Your task to perform on an android device: Open Yahoo.com Image 0: 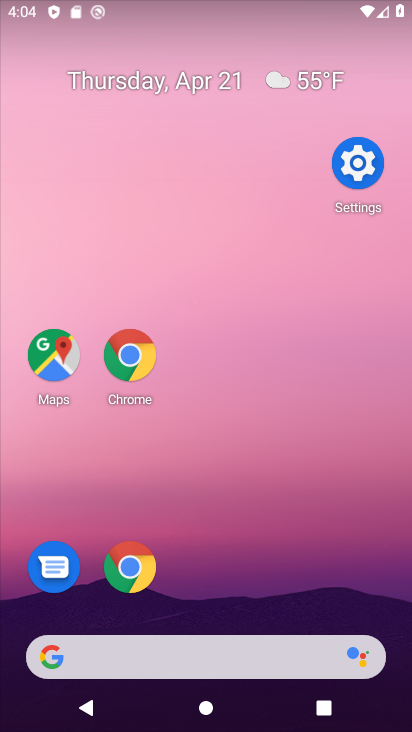
Step 0: drag from (259, 520) to (259, 139)
Your task to perform on an android device: Open Yahoo.com Image 1: 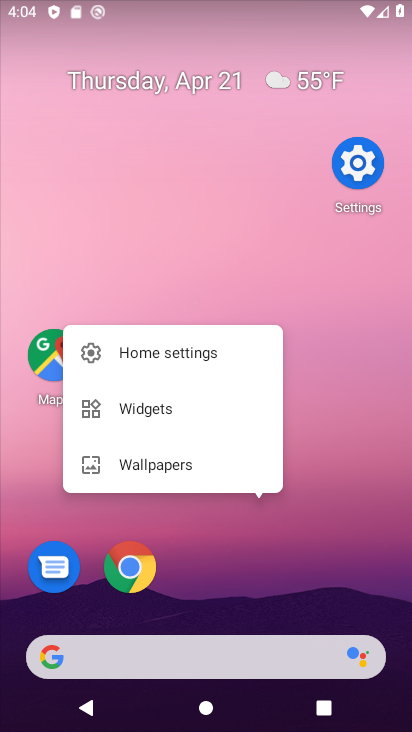
Step 1: drag from (290, 297) to (295, 56)
Your task to perform on an android device: Open Yahoo.com Image 2: 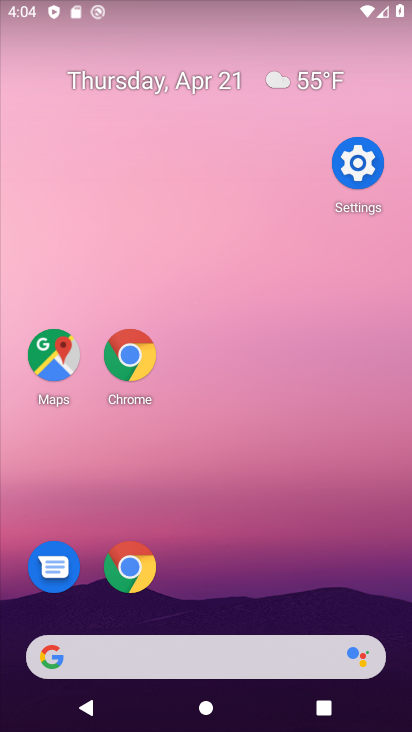
Step 2: drag from (278, 554) to (285, 56)
Your task to perform on an android device: Open Yahoo.com Image 3: 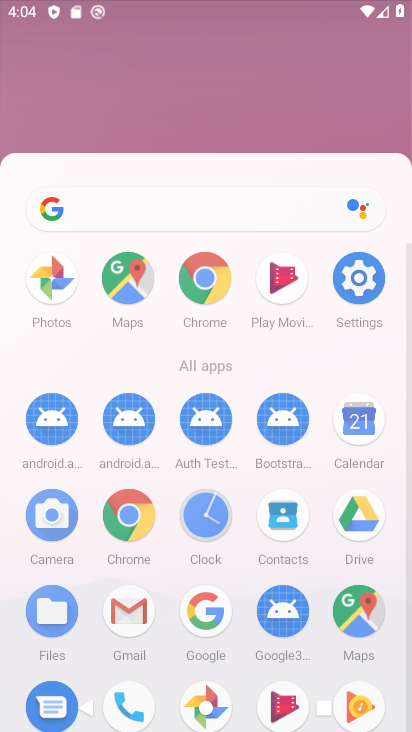
Step 3: drag from (242, 10) to (175, 9)
Your task to perform on an android device: Open Yahoo.com Image 4: 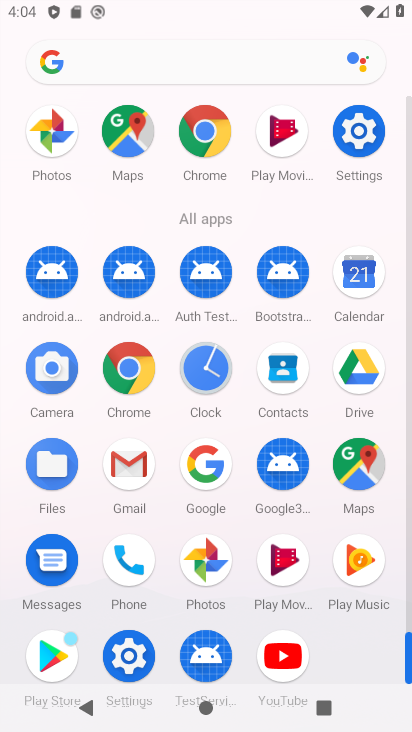
Step 4: click (200, 118)
Your task to perform on an android device: Open Yahoo.com Image 5: 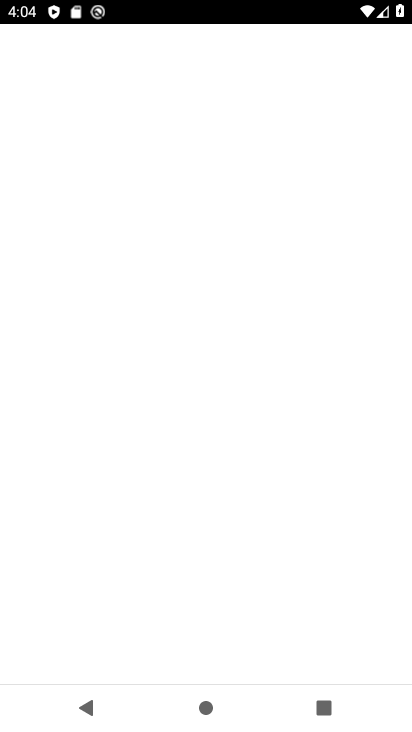
Step 5: click (208, 132)
Your task to perform on an android device: Open Yahoo.com Image 6: 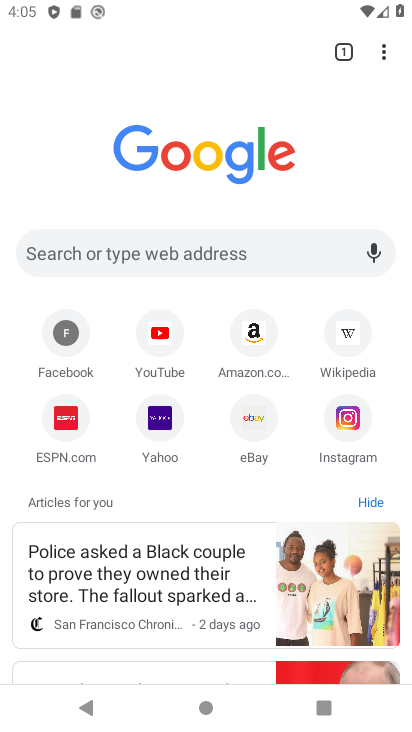
Step 6: click (68, 247)
Your task to perform on an android device: Open Yahoo.com Image 7: 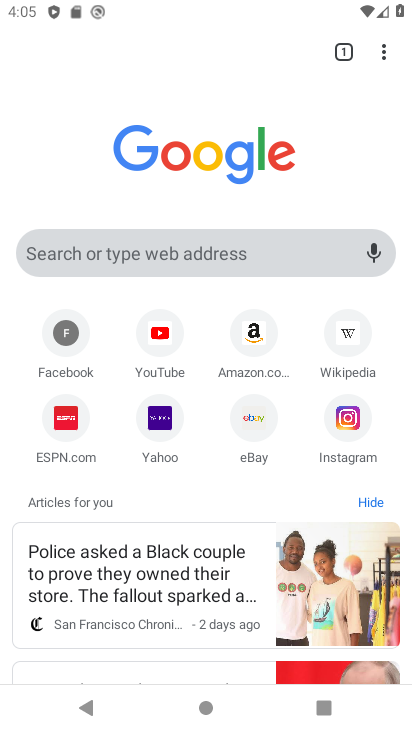
Step 7: click (68, 247)
Your task to perform on an android device: Open Yahoo.com Image 8: 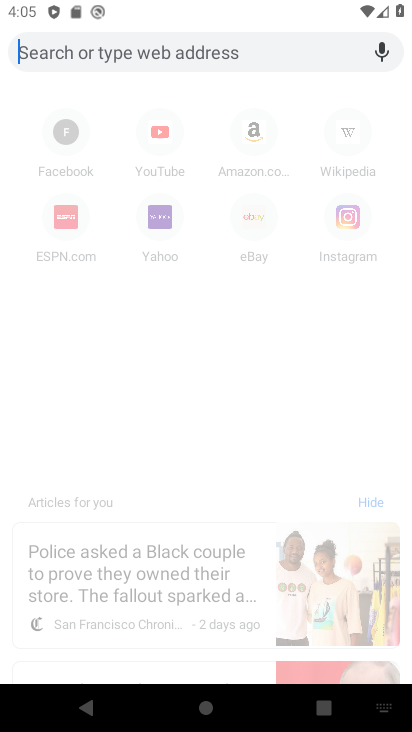
Step 8: click (163, 213)
Your task to perform on an android device: Open Yahoo.com Image 9: 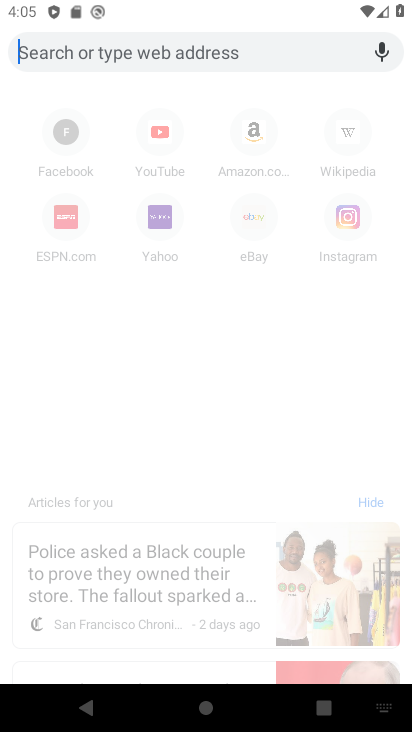
Step 9: click (164, 213)
Your task to perform on an android device: Open Yahoo.com Image 10: 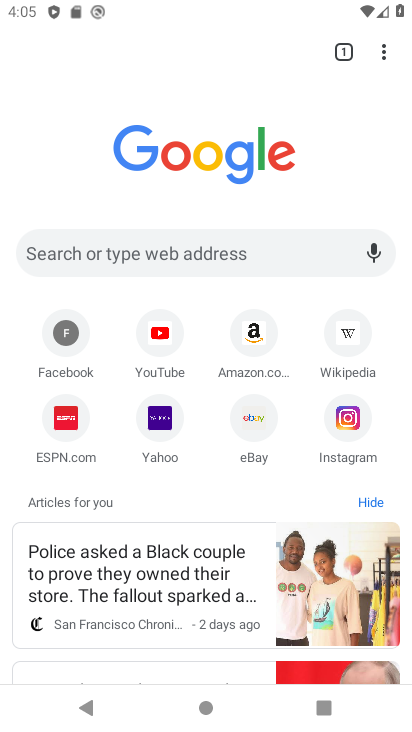
Step 10: click (164, 213)
Your task to perform on an android device: Open Yahoo.com Image 11: 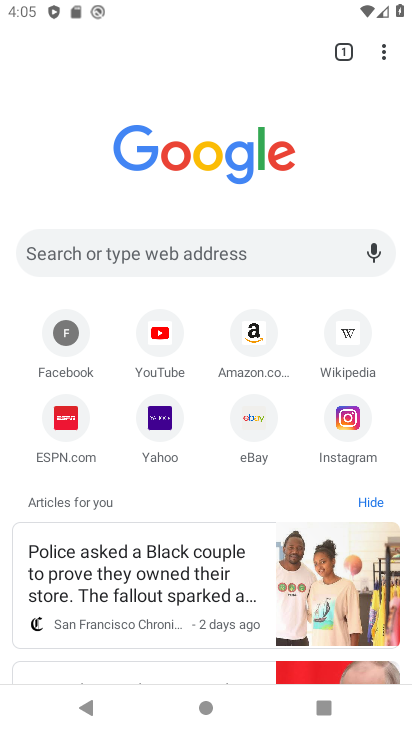
Step 11: click (153, 412)
Your task to perform on an android device: Open Yahoo.com Image 12: 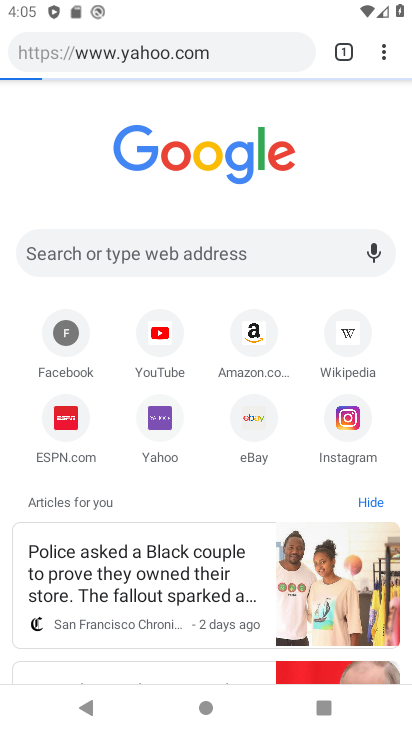
Step 12: click (160, 414)
Your task to perform on an android device: Open Yahoo.com Image 13: 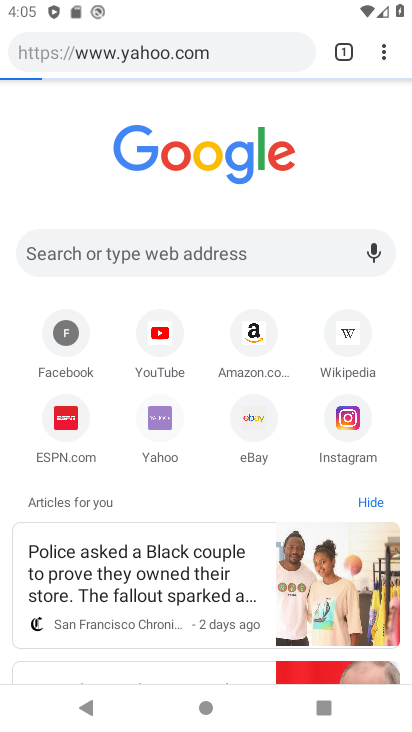
Step 13: click (161, 410)
Your task to perform on an android device: Open Yahoo.com Image 14: 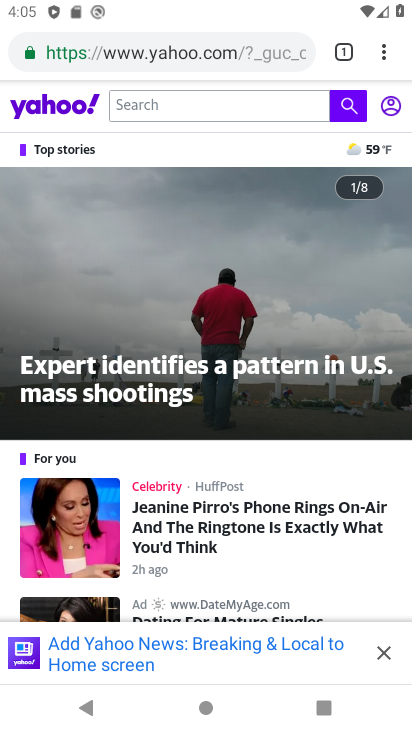
Step 14: task complete